Your task to perform on an android device: Go to accessibility settings Image 0: 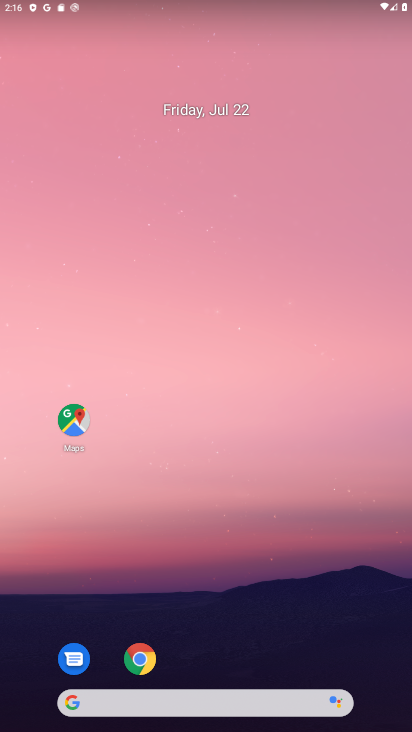
Step 0: drag from (193, 392) to (86, 91)
Your task to perform on an android device: Go to accessibility settings Image 1: 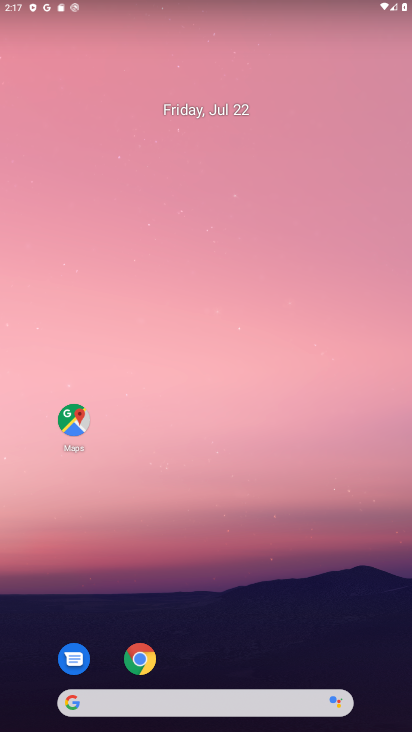
Step 1: drag from (185, 591) to (130, 223)
Your task to perform on an android device: Go to accessibility settings Image 2: 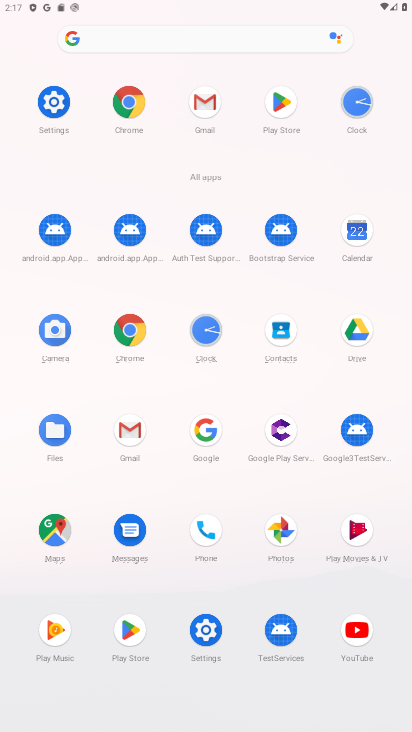
Step 2: click (55, 101)
Your task to perform on an android device: Go to accessibility settings Image 3: 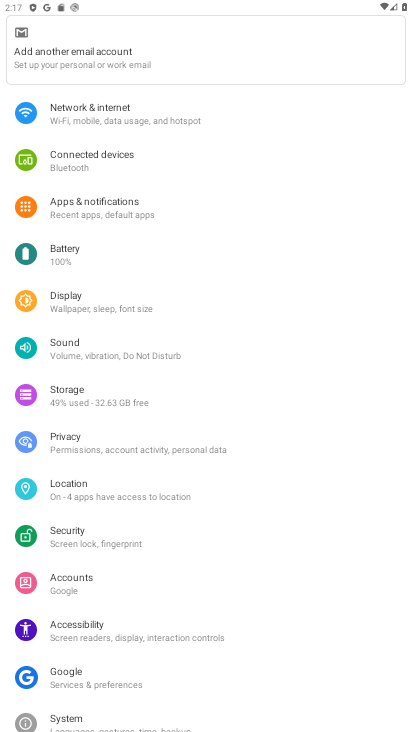
Step 3: click (77, 615)
Your task to perform on an android device: Go to accessibility settings Image 4: 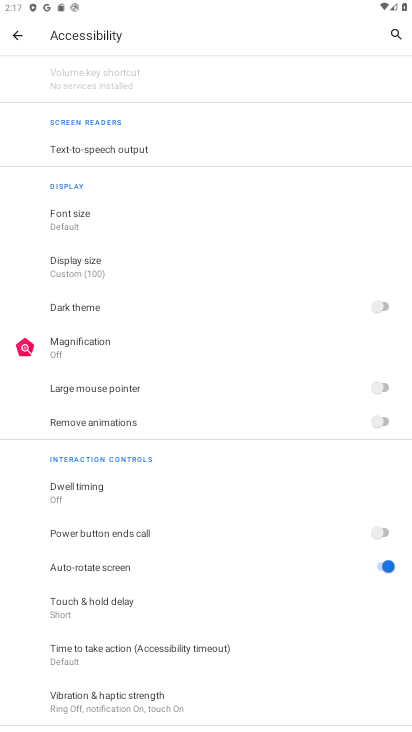
Step 4: task complete